Your task to perform on an android device: Toggle the flashlight Image 0: 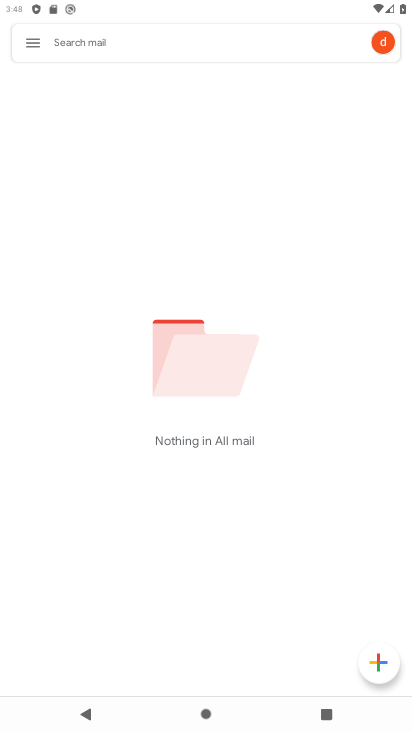
Step 0: press home button
Your task to perform on an android device: Toggle the flashlight Image 1: 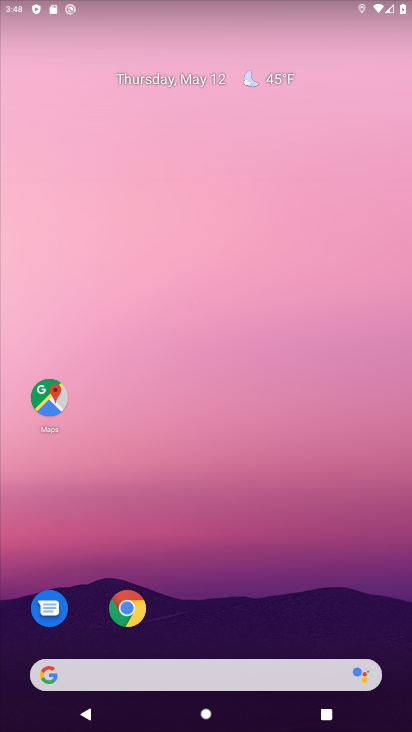
Step 1: task complete